Your task to perform on an android device: turn off improve location accuracy Image 0: 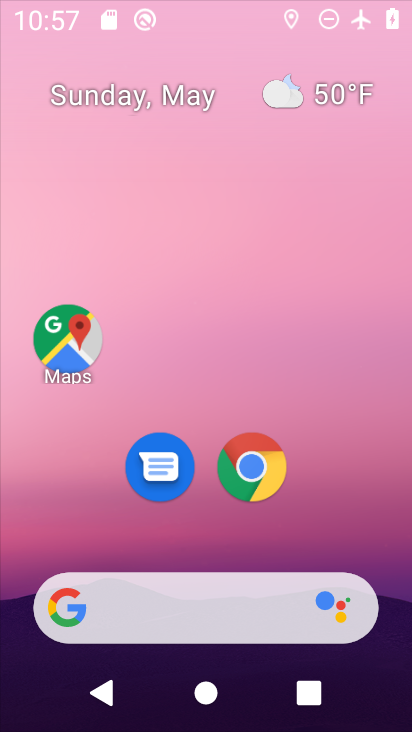
Step 0: click (261, 282)
Your task to perform on an android device: turn off improve location accuracy Image 1: 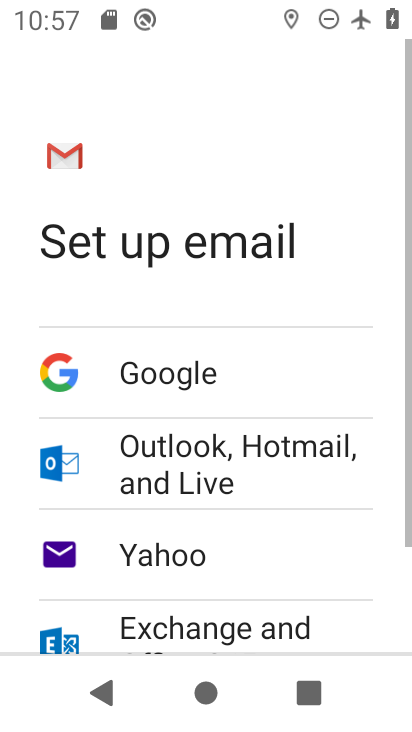
Step 1: press home button
Your task to perform on an android device: turn off improve location accuracy Image 2: 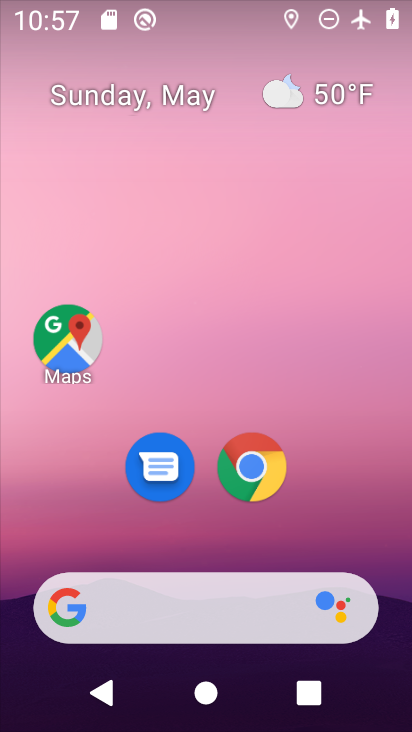
Step 2: drag from (204, 546) to (212, 142)
Your task to perform on an android device: turn off improve location accuracy Image 3: 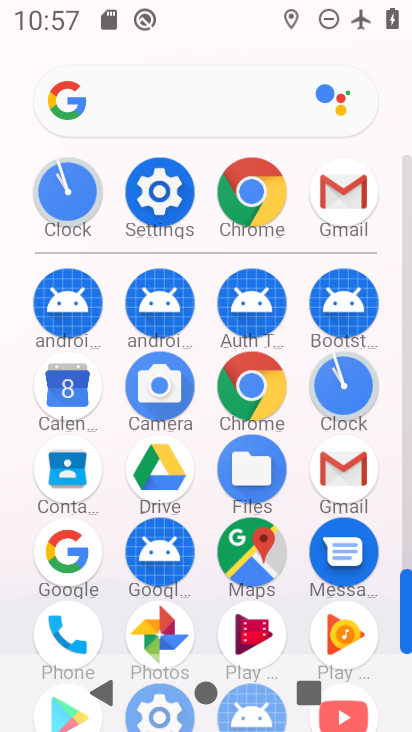
Step 3: click (149, 195)
Your task to perform on an android device: turn off improve location accuracy Image 4: 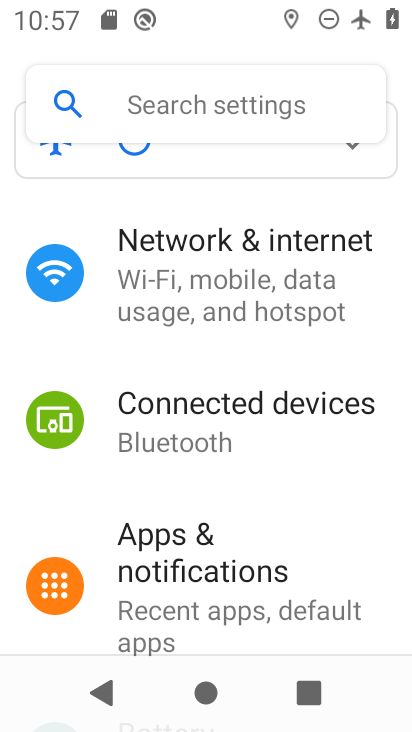
Step 4: drag from (289, 568) to (283, 293)
Your task to perform on an android device: turn off improve location accuracy Image 5: 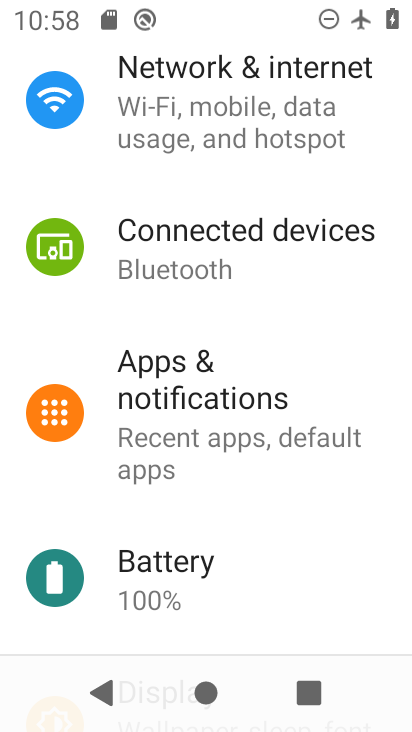
Step 5: drag from (216, 616) to (228, 412)
Your task to perform on an android device: turn off improve location accuracy Image 6: 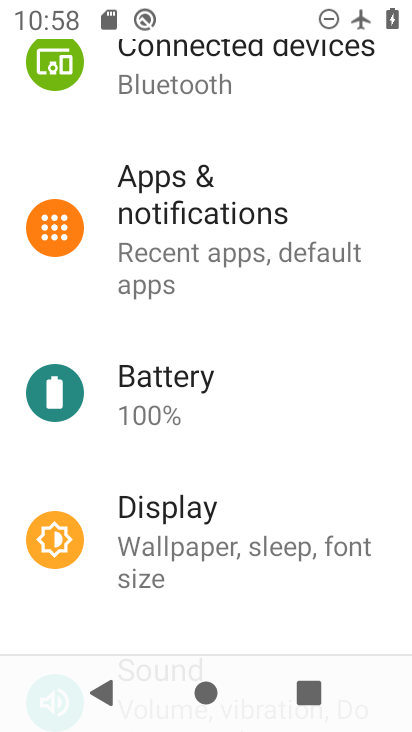
Step 6: drag from (249, 600) to (251, 388)
Your task to perform on an android device: turn off improve location accuracy Image 7: 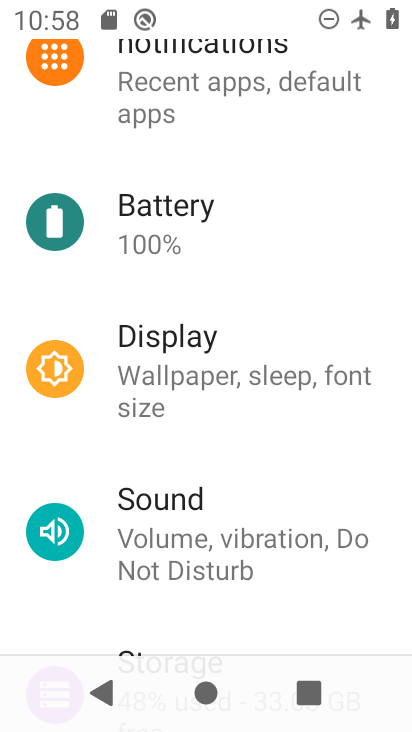
Step 7: drag from (242, 608) to (229, 335)
Your task to perform on an android device: turn off improve location accuracy Image 8: 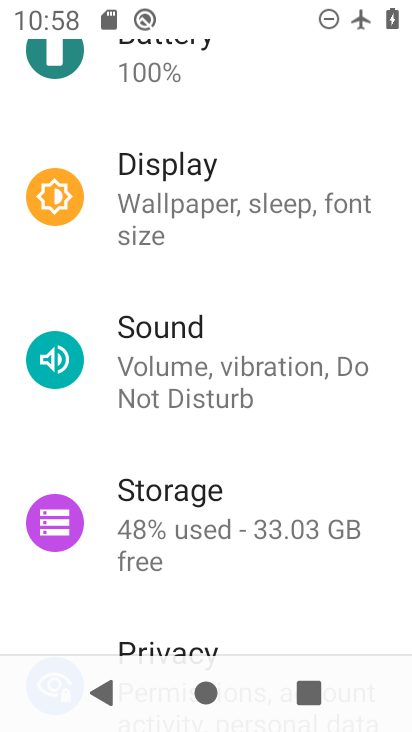
Step 8: drag from (242, 591) to (207, 271)
Your task to perform on an android device: turn off improve location accuracy Image 9: 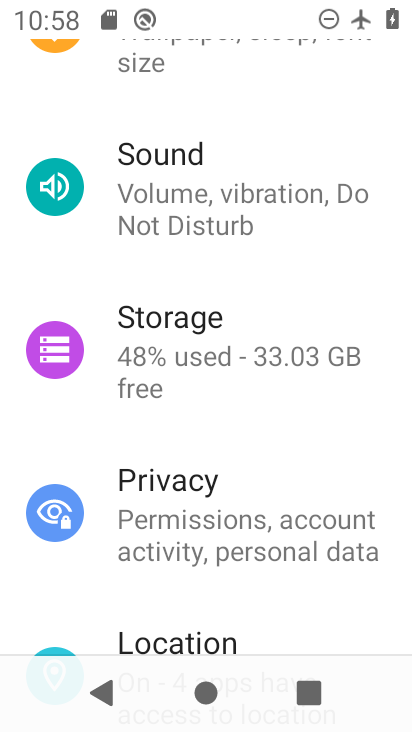
Step 9: drag from (231, 589) to (194, 295)
Your task to perform on an android device: turn off improve location accuracy Image 10: 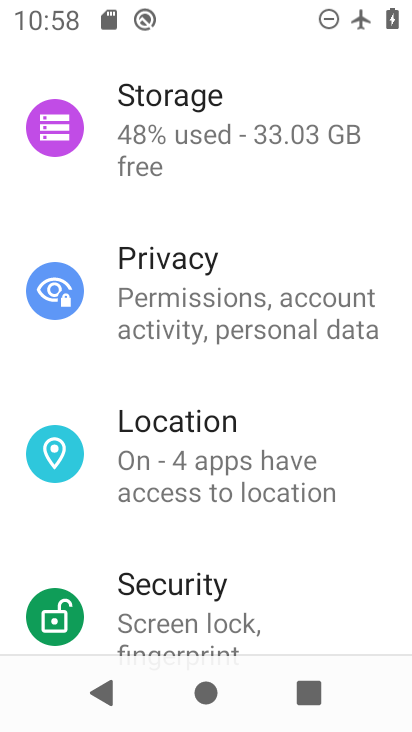
Step 10: click (183, 483)
Your task to perform on an android device: turn off improve location accuracy Image 11: 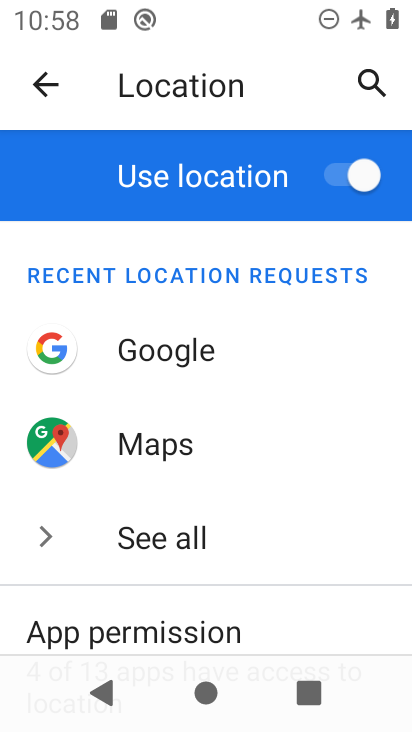
Step 11: drag from (225, 594) to (219, 332)
Your task to perform on an android device: turn off improve location accuracy Image 12: 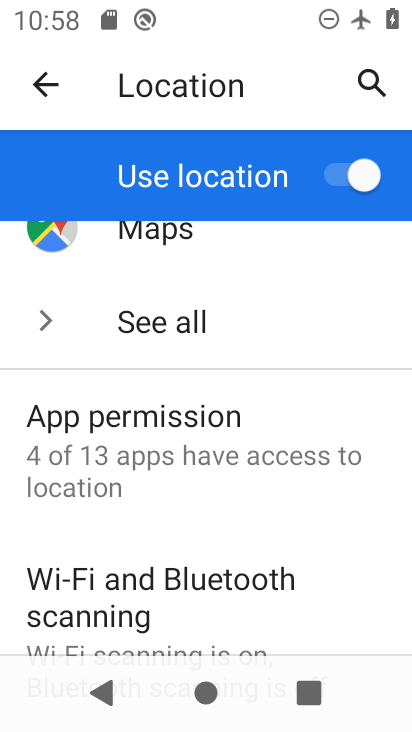
Step 12: drag from (236, 609) to (242, 377)
Your task to perform on an android device: turn off improve location accuracy Image 13: 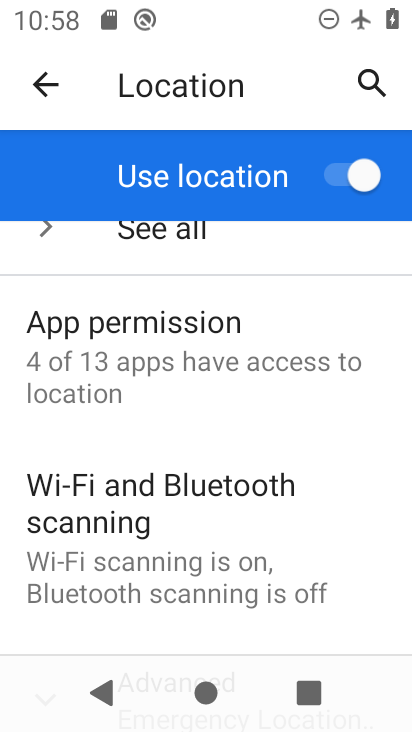
Step 13: drag from (228, 580) to (225, 391)
Your task to perform on an android device: turn off improve location accuracy Image 14: 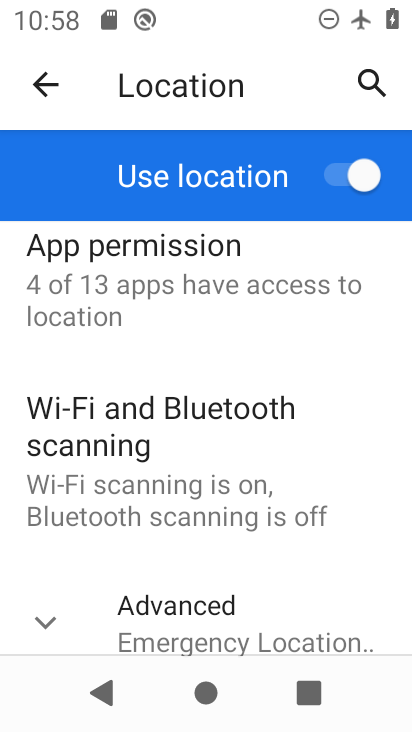
Step 14: drag from (226, 605) to (209, 412)
Your task to perform on an android device: turn off improve location accuracy Image 15: 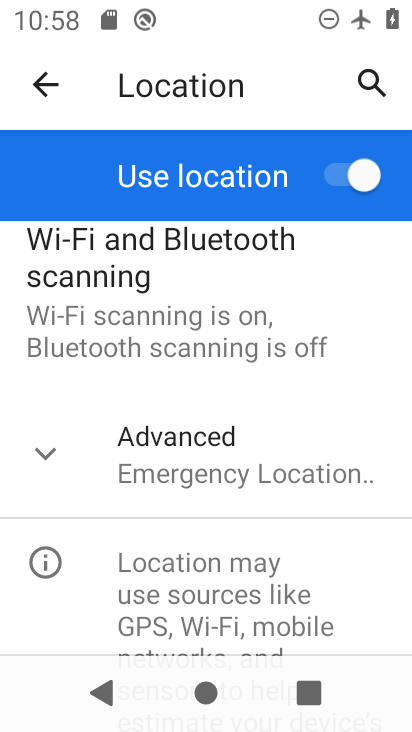
Step 15: click (213, 473)
Your task to perform on an android device: turn off improve location accuracy Image 16: 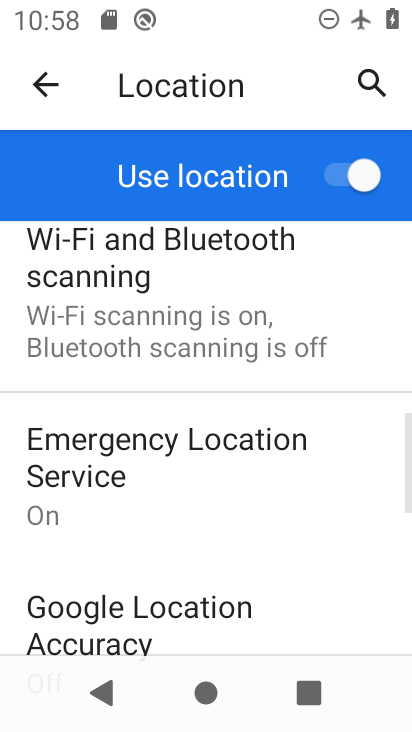
Step 16: drag from (191, 615) to (185, 430)
Your task to perform on an android device: turn off improve location accuracy Image 17: 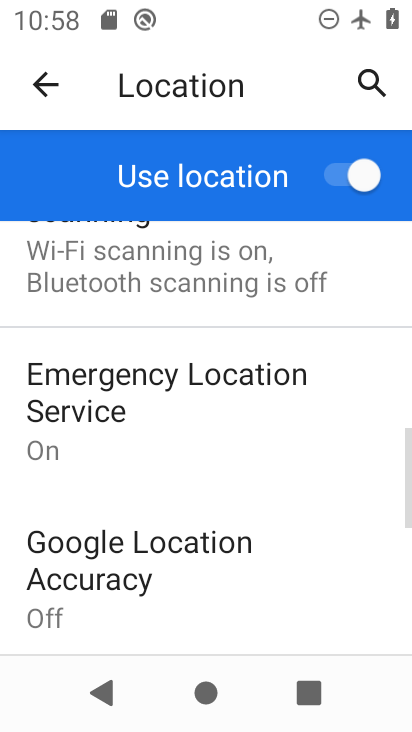
Step 17: click (191, 551)
Your task to perform on an android device: turn off improve location accuracy Image 18: 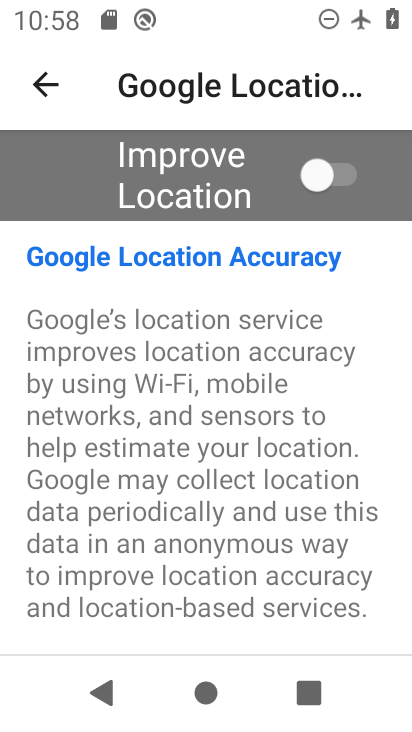
Step 18: task complete